Your task to perform on an android device: change the clock display to show seconds Image 0: 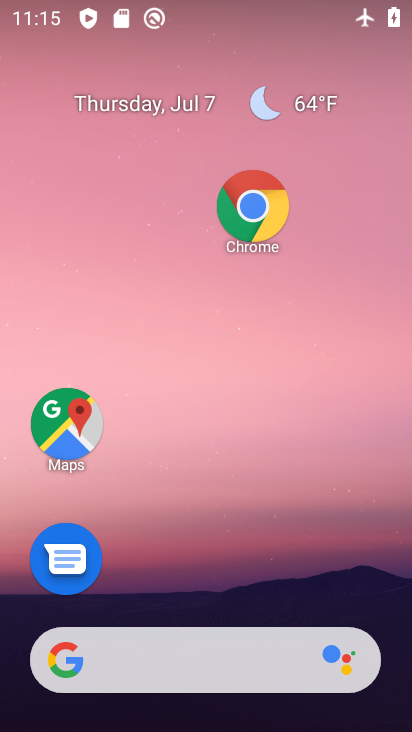
Step 0: drag from (130, 666) to (173, 204)
Your task to perform on an android device: change the clock display to show seconds Image 1: 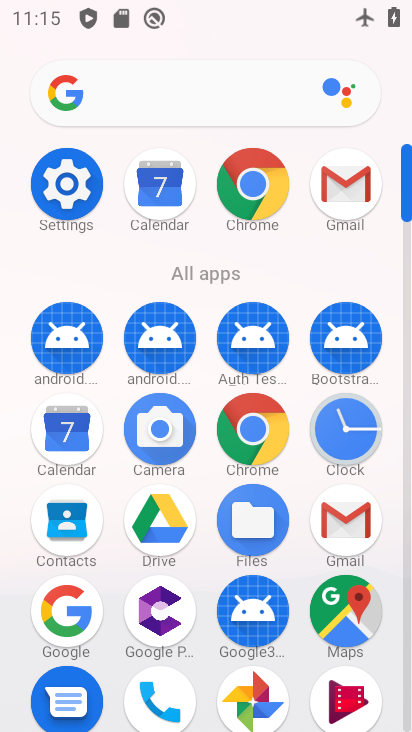
Step 1: click (326, 432)
Your task to perform on an android device: change the clock display to show seconds Image 2: 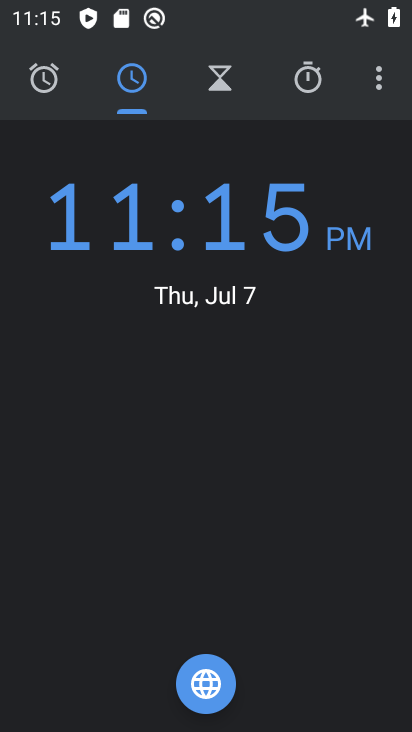
Step 2: click (375, 83)
Your task to perform on an android device: change the clock display to show seconds Image 3: 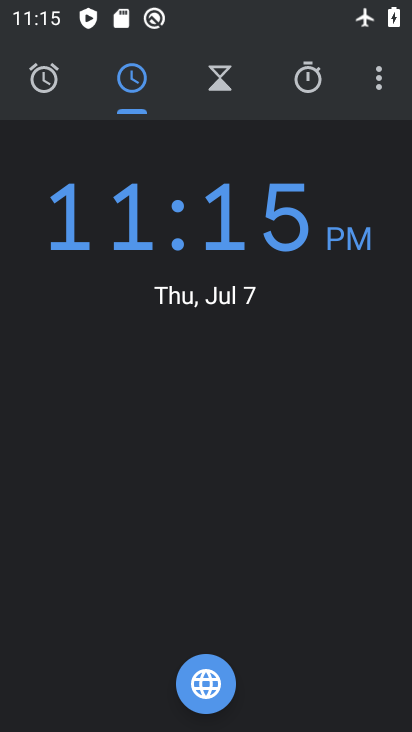
Step 3: click (295, 311)
Your task to perform on an android device: change the clock display to show seconds Image 4: 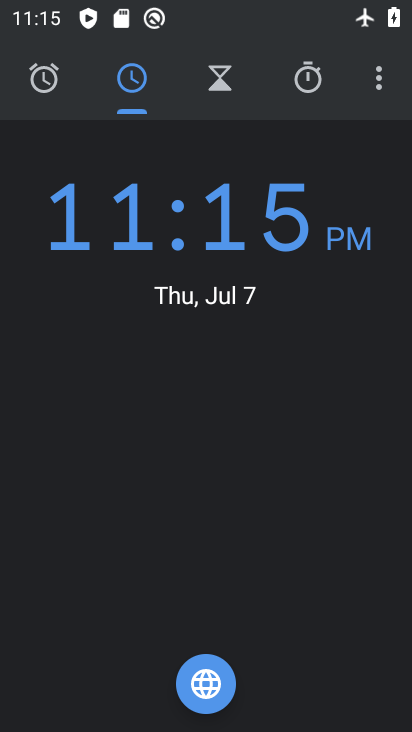
Step 4: click (379, 86)
Your task to perform on an android device: change the clock display to show seconds Image 5: 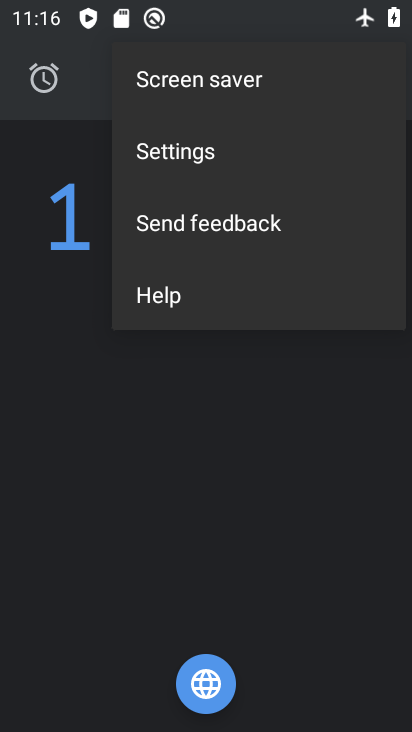
Step 5: click (176, 149)
Your task to perform on an android device: change the clock display to show seconds Image 6: 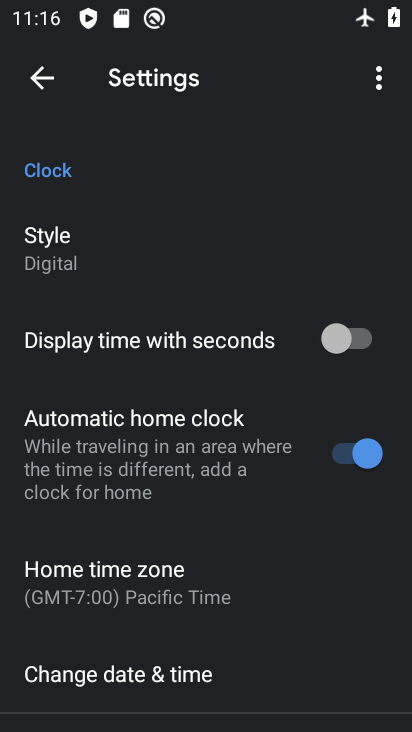
Step 6: click (349, 337)
Your task to perform on an android device: change the clock display to show seconds Image 7: 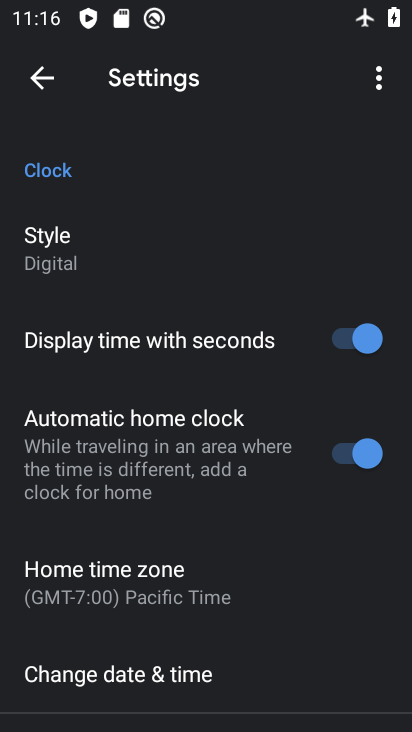
Step 7: task complete